Your task to perform on an android device: turn on location history Image 0: 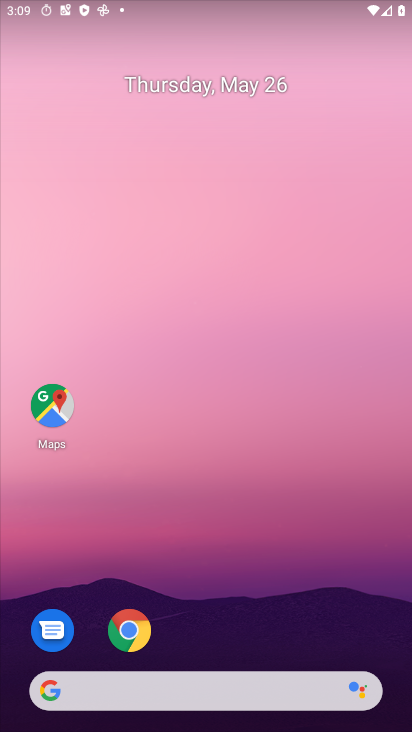
Step 0: drag from (342, 628) to (306, 298)
Your task to perform on an android device: turn on location history Image 1: 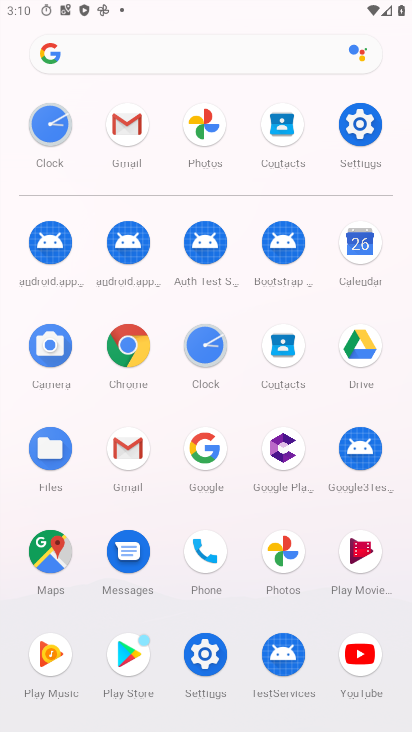
Step 1: click (354, 117)
Your task to perform on an android device: turn on location history Image 2: 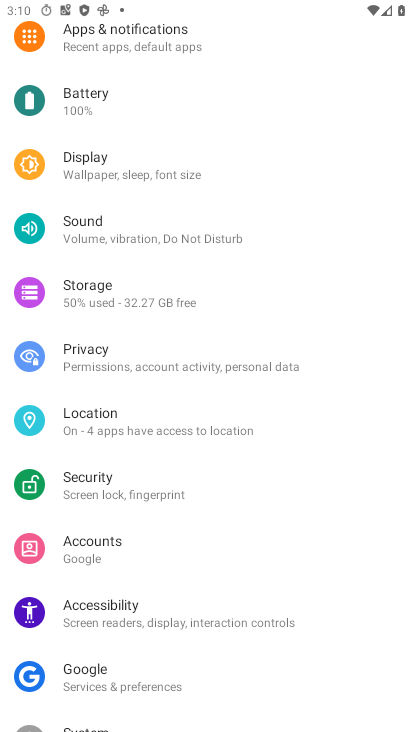
Step 2: click (142, 419)
Your task to perform on an android device: turn on location history Image 3: 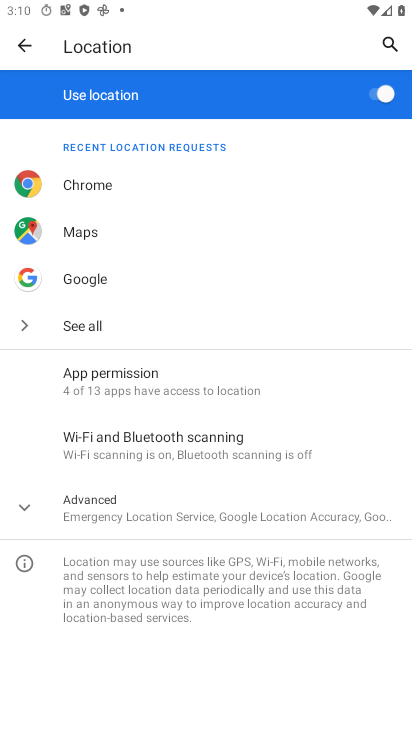
Step 3: click (140, 498)
Your task to perform on an android device: turn on location history Image 4: 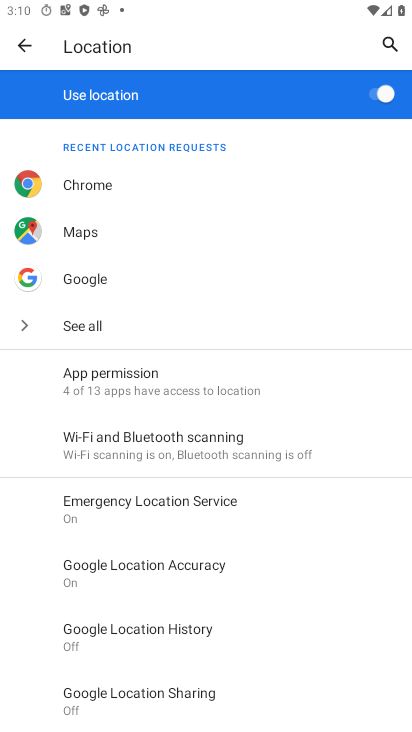
Step 4: click (161, 632)
Your task to perform on an android device: turn on location history Image 5: 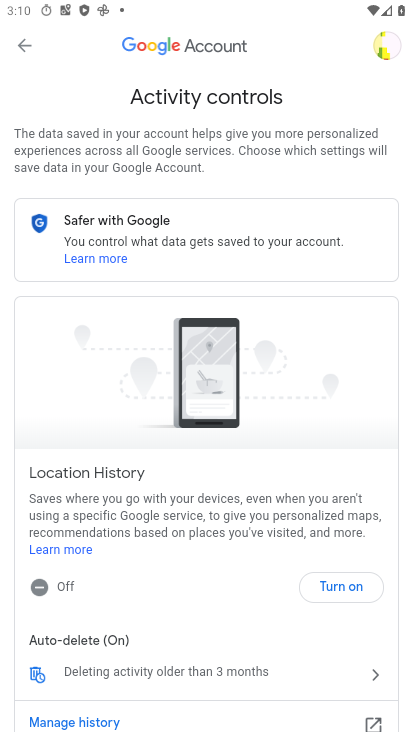
Step 5: click (340, 590)
Your task to perform on an android device: turn on location history Image 6: 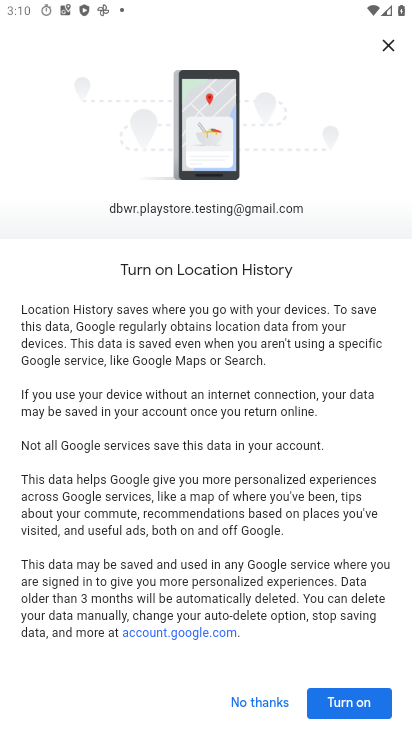
Step 6: click (369, 708)
Your task to perform on an android device: turn on location history Image 7: 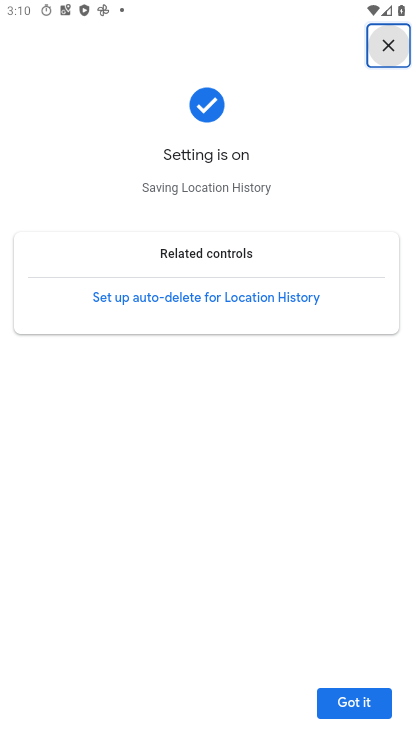
Step 7: click (369, 708)
Your task to perform on an android device: turn on location history Image 8: 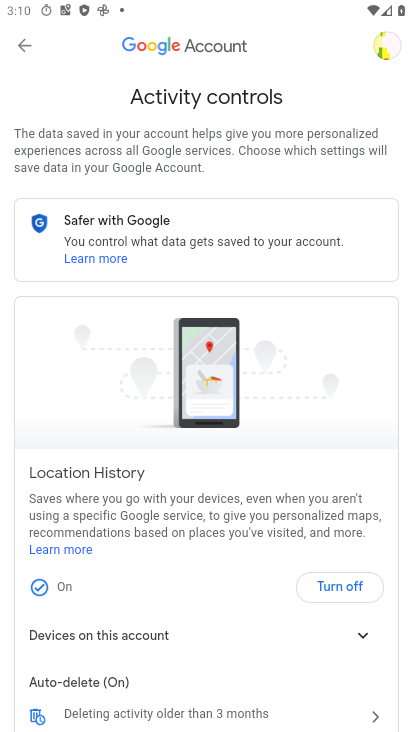
Step 8: task complete